Your task to perform on an android device: open wifi settings Image 0: 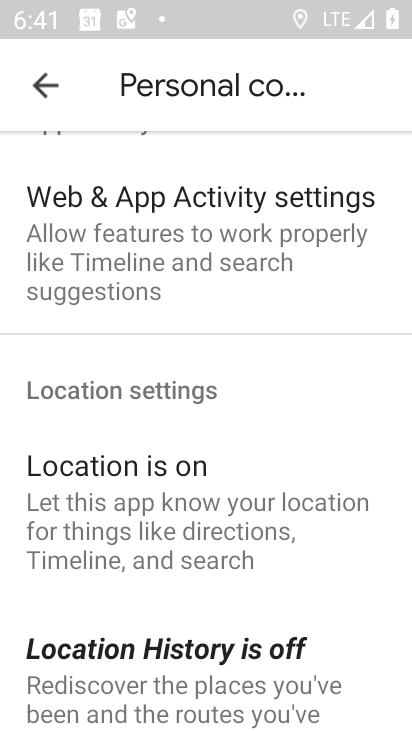
Step 0: press home button
Your task to perform on an android device: open wifi settings Image 1: 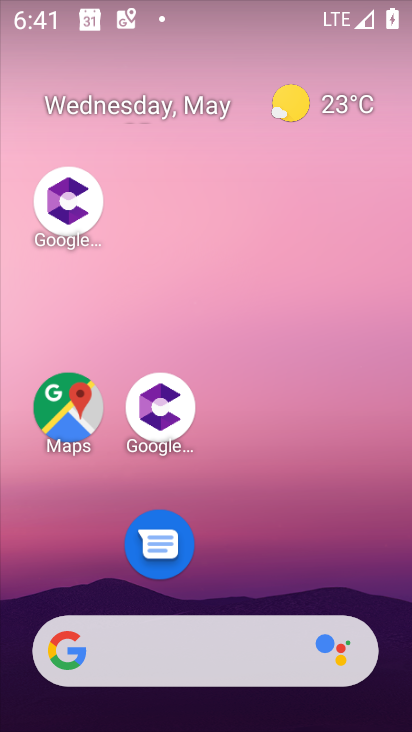
Step 1: drag from (252, 509) to (183, 49)
Your task to perform on an android device: open wifi settings Image 2: 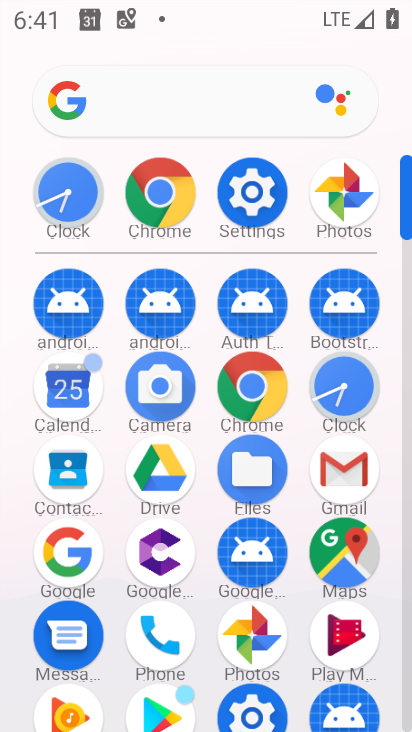
Step 2: click (251, 187)
Your task to perform on an android device: open wifi settings Image 3: 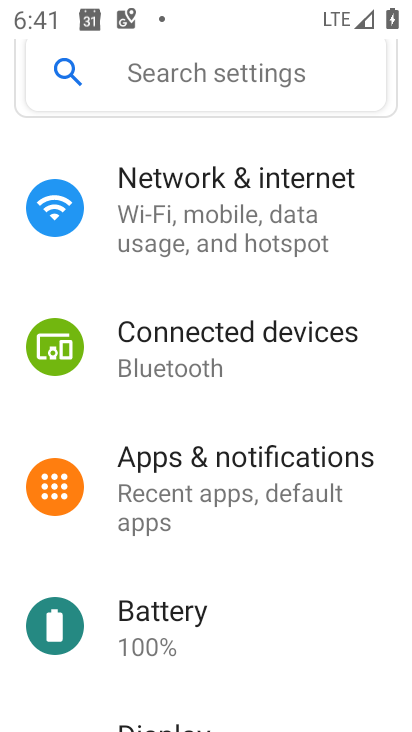
Step 3: click (195, 194)
Your task to perform on an android device: open wifi settings Image 4: 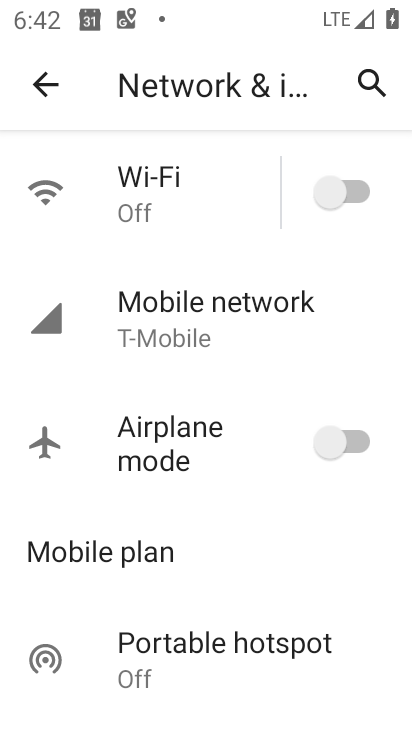
Step 4: click (180, 187)
Your task to perform on an android device: open wifi settings Image 5: 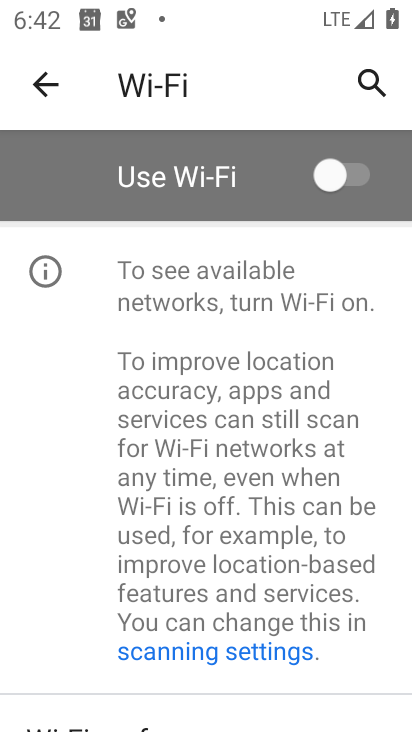
Step 5: task complete